Your task to perform on an android device: turn on notifications settings in the gmail app Image 0: 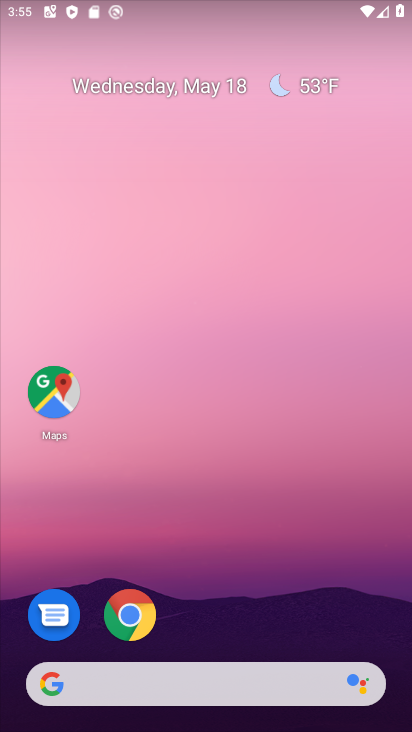
Step 0: drag from (284, 608) to (204, 71)
Your task to perform on an android device: turn on notifications settings in the gmail app Image 1: 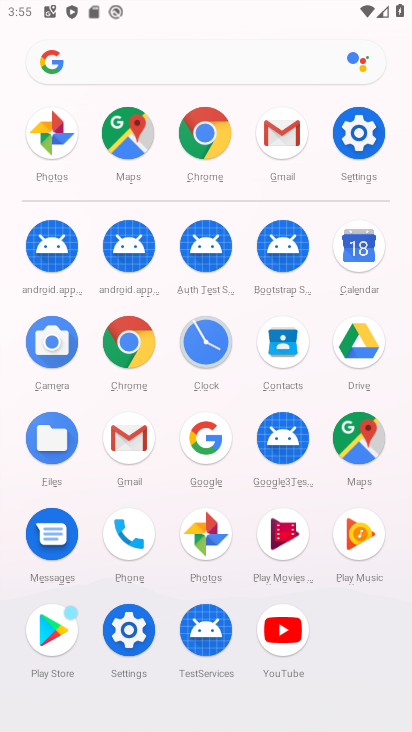
Step 1: click (287, 144)
Your task to perform on an android device: turn on notifications settings in the gmail app Image 2: 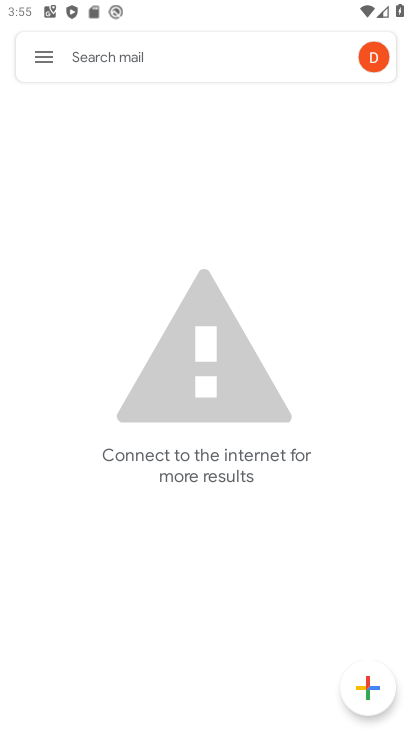
Step 2: click (53, 54)
Your task to perform on an android device: turn on notifications settings in the gmail app Image 3: 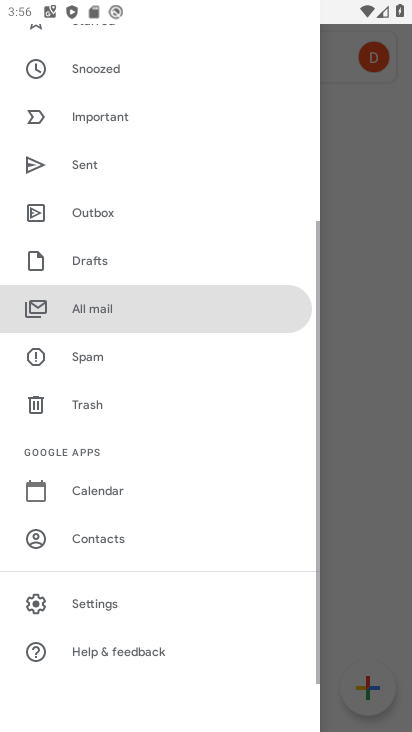
Step 3: click (111, 604)
Your task to perform on an android device: turn on notifications settings in the gmail app Image 4: 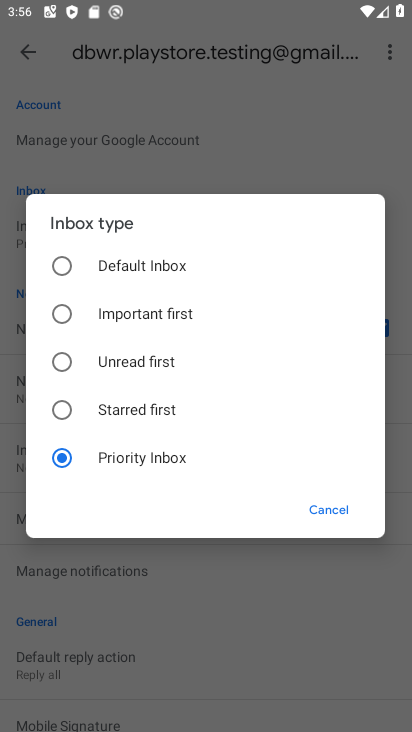
Step 4: click (342, 511)
Your task to perform on an android device: turn on notifications settings in the gmail app Image 5: 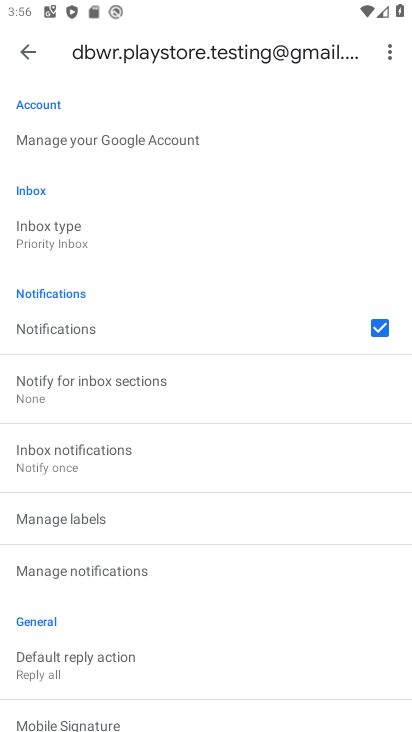
Step 5: click (117, 570)
Your task to perform on an android device: turn on notifications settings in the gmail app Image 6: 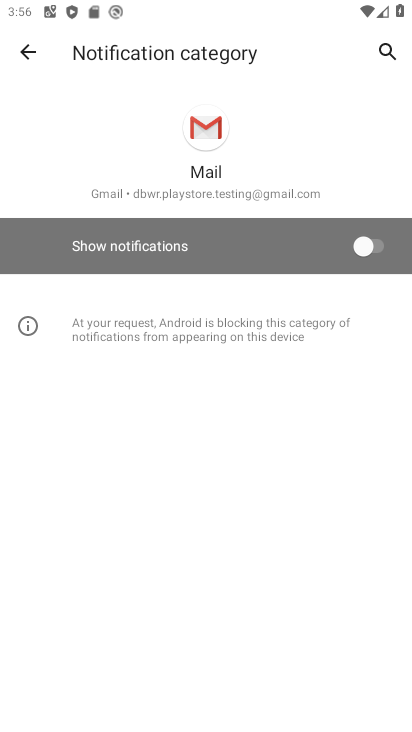
Step 6: click (352, 252)
Your task to perform on an android device: turn on notifications settings in the gmail app Image 7: 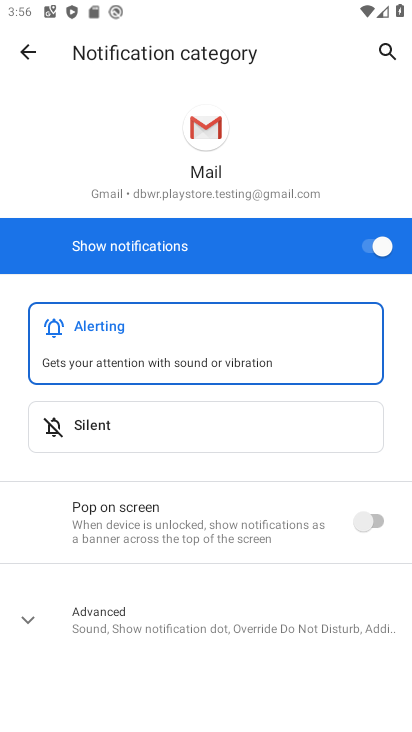
Step 7: task complete